Your task to perform on an android device: clear history in the chrome app Image 0: 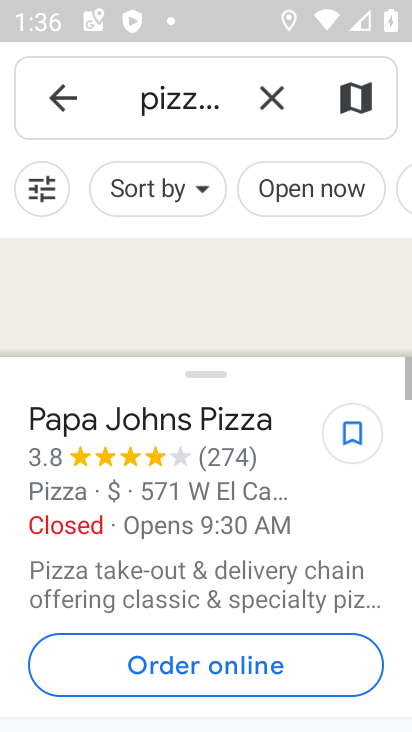
Step 0: press home button
Your task to perform on an android device: clear history in the chrome app Image 1: 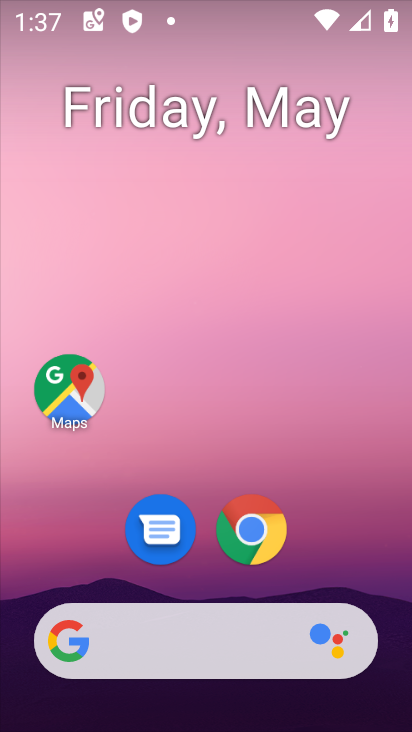
Step 1: click (249, 546)
Your task to perform on an android device: clear history in the chrome app Image 2: 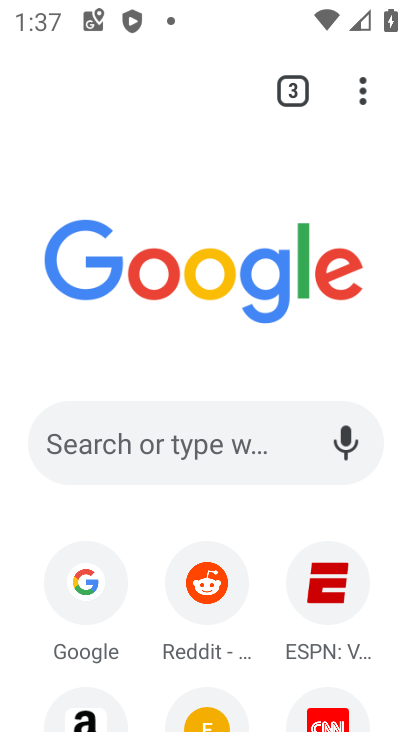
Step 2: click (372, 86)
Your task to perform on an android device: clear history in the chrome app Image 3: 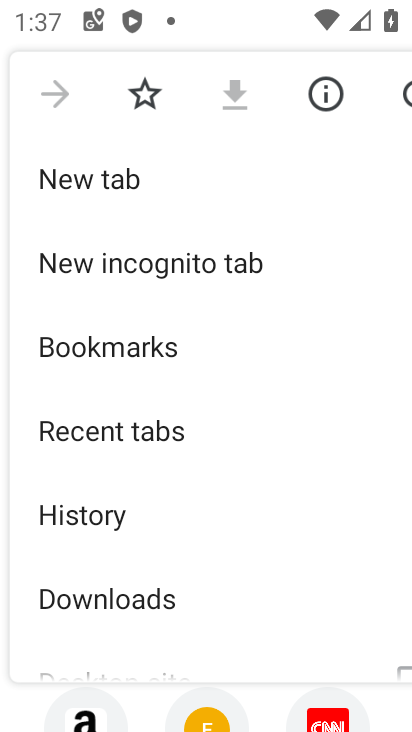
Step 3: drag from (245, 528) to (216, 297)
Your task to perform on an android device: clear history in the chrome app Image 4: 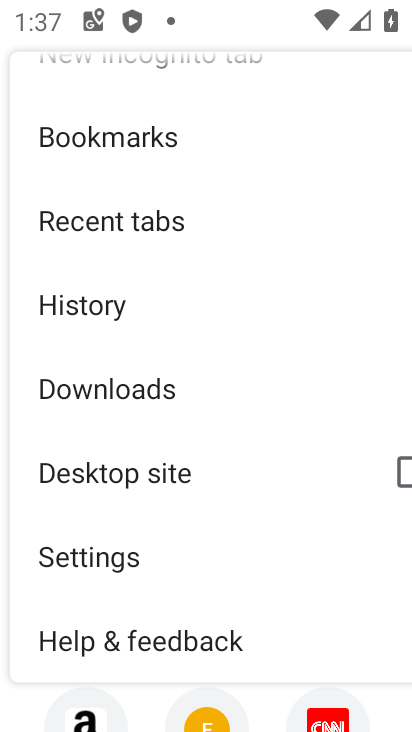
Step 4: click (214, 542)
Your task to perform on an android device: clear history in the chrome app Image 5: 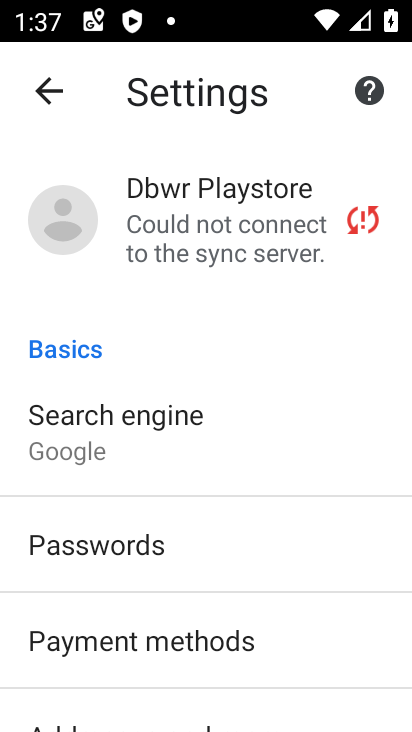
Step 5: drag from (161, 615) to (150, 465)
Your task to perform on an android device: clear history in the chrome app Image 6: 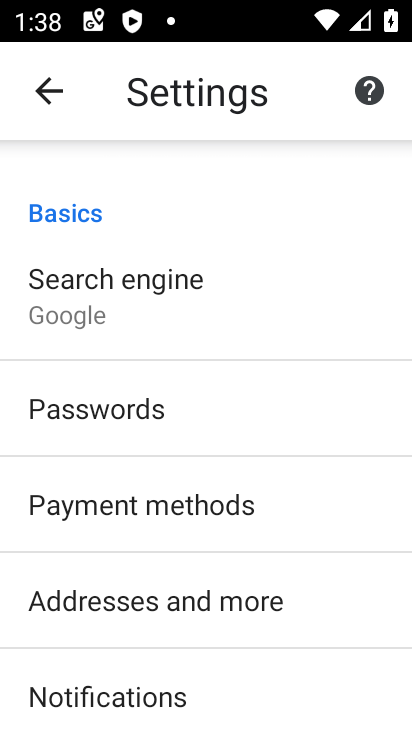
Step 6: press back button
Your task to perform on an android device: clear history in the chrome app Image 7: 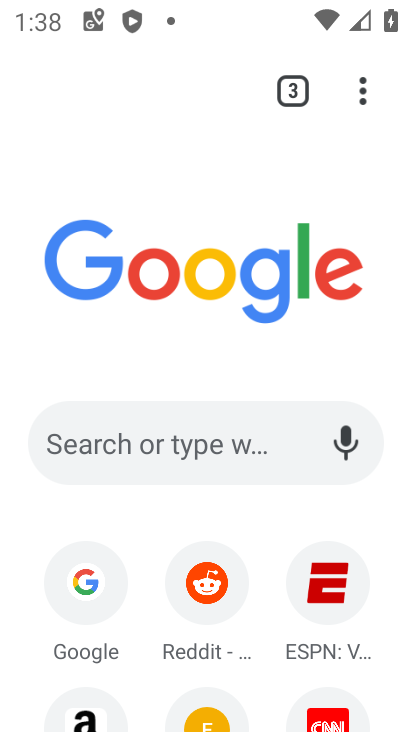
Step 7: click (357, 96)
Your task to perform on an android device: clear history in the chrome app Image 8: 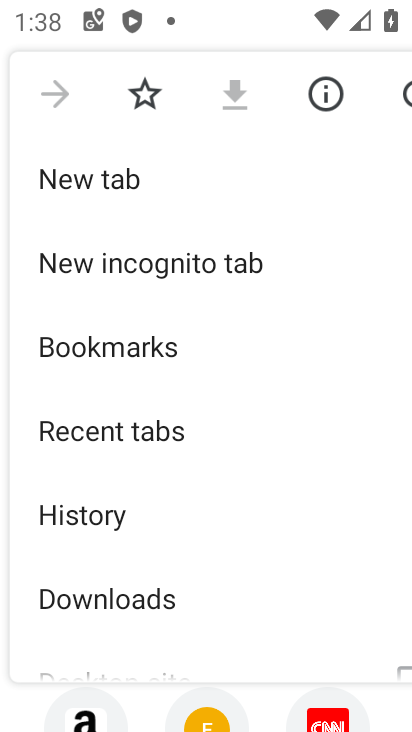
Step 8: click (173, 494)
Your task to perform on an android device: clear history in the chrome app Image 9: 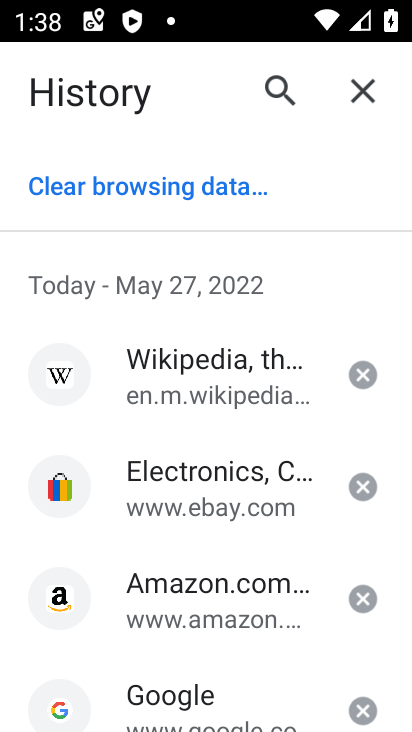
Step 9: click (233, 190)
Your task to perform on an android device: clear history in the chrome app Image 10: 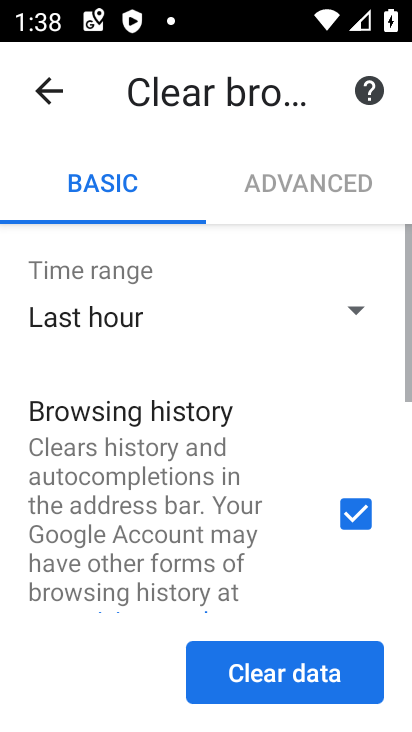
Step 10: click (307, 655)
Your task to perform on an android device: clear history in the chrome app Image 11: 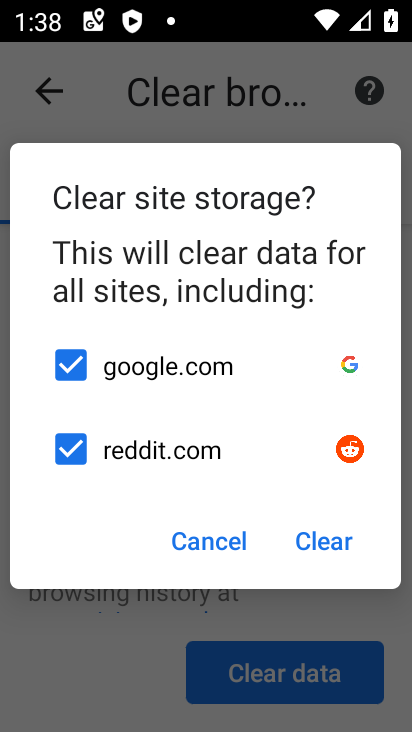
Step 11: click (329, 536)
Your task to perform on an android device: clear history in the chrome app Image 12: 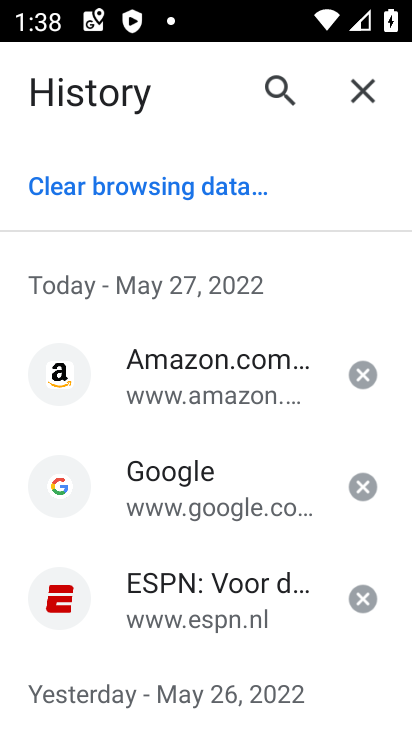
Step 12: task complete